Your task to perform on an android device: Open network settings Image 0: 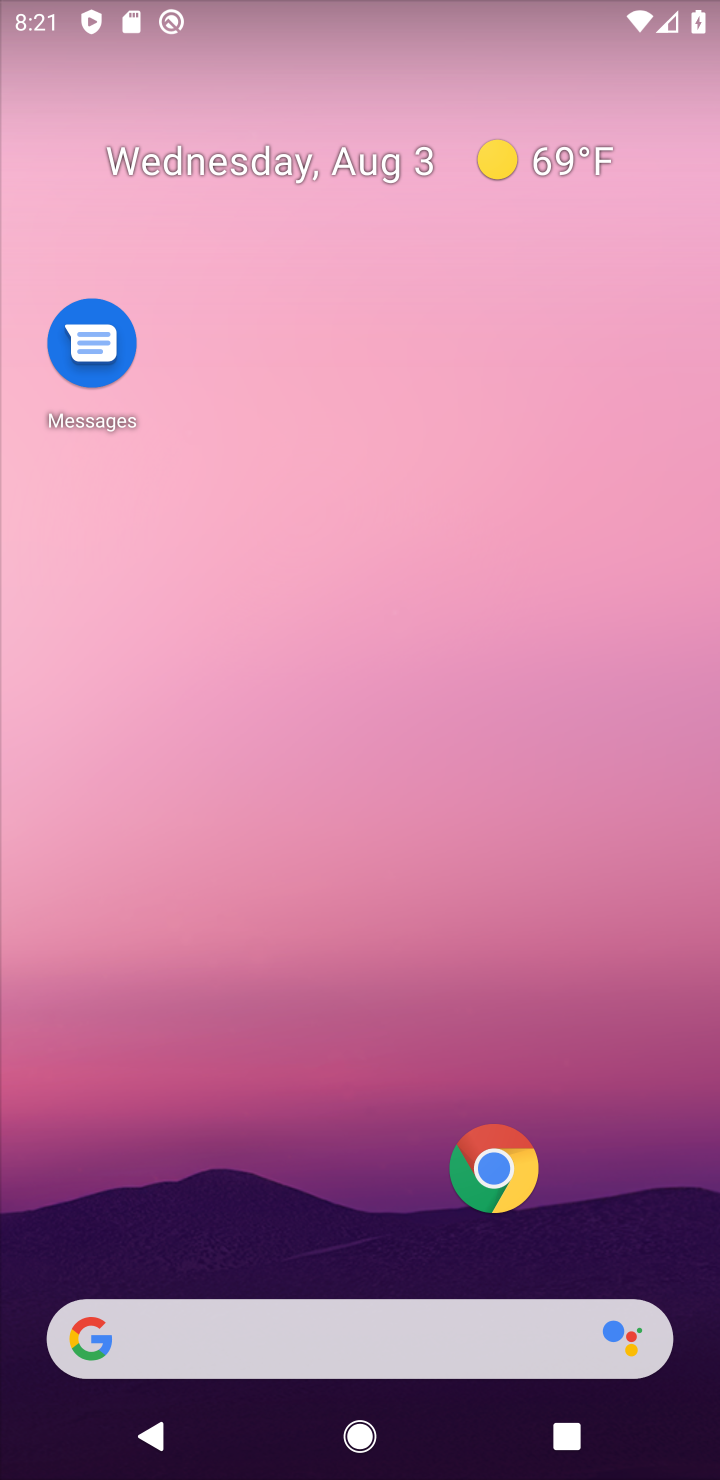
Step 0: drag from (410, 1190) to (388, 46)
Your task to perform on an android device: Open network settings Image 1: 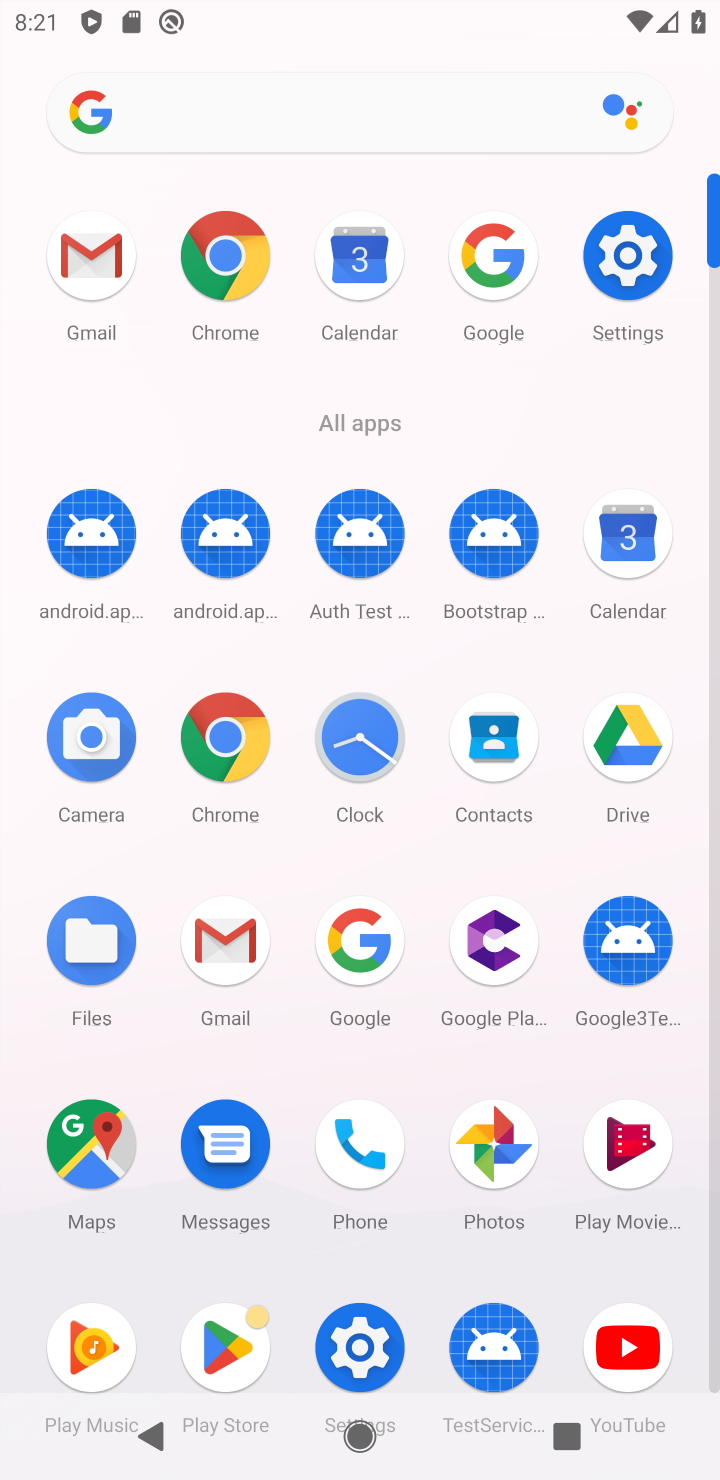
Step 1: click (597, 249)
Your task to perform on an android device: Open network settings Image 2: 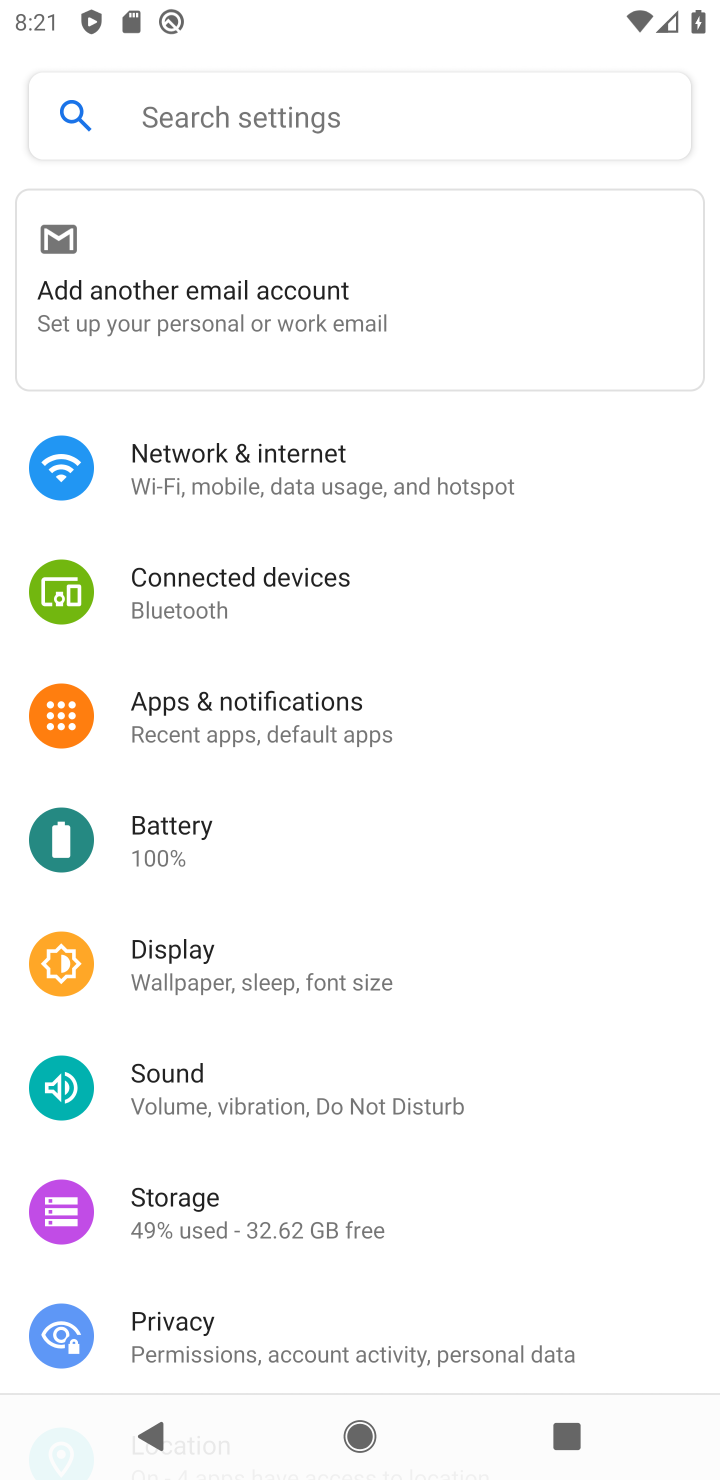
Step 2: click (277, 477)
Your task to perform on an android device: Open network settings Image 3: 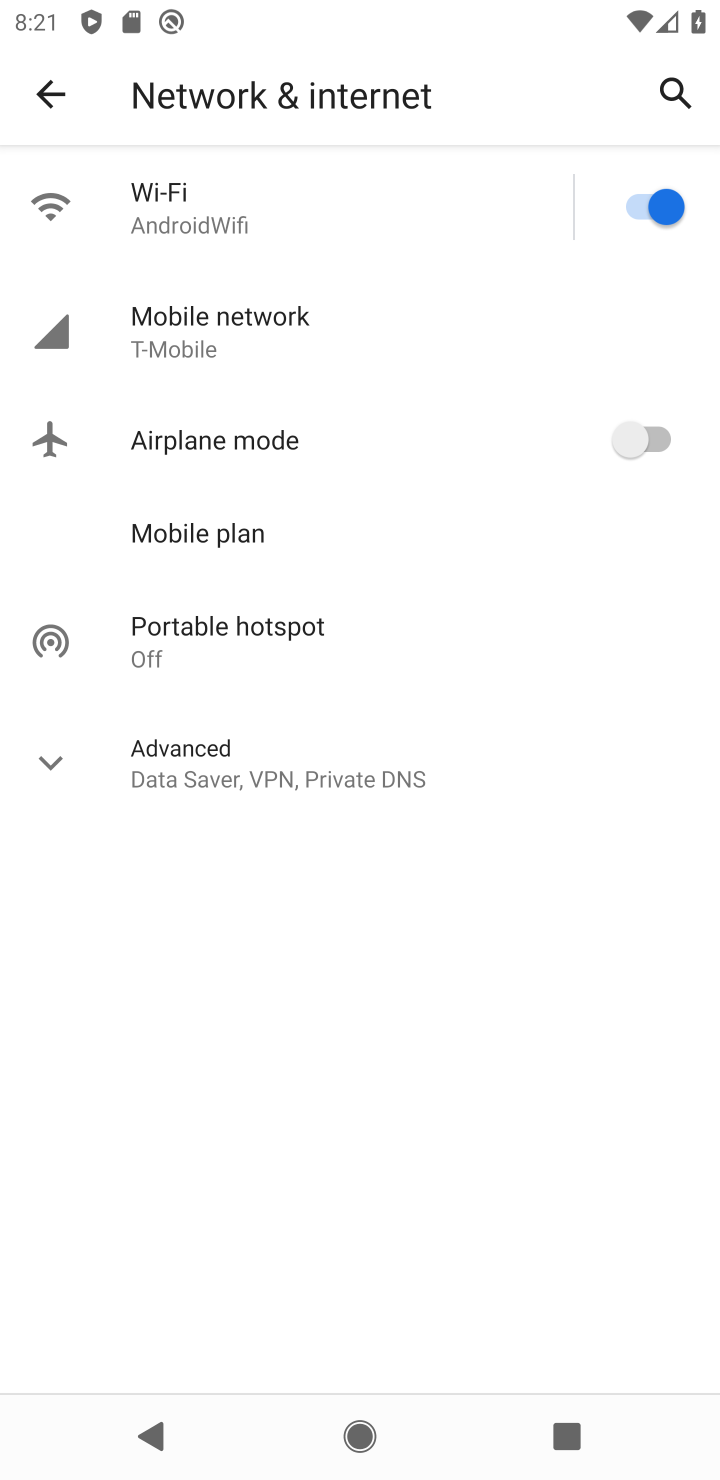
Step 3: click (134, 304)
Your task to perform on an android device: Open network settings Image 4: 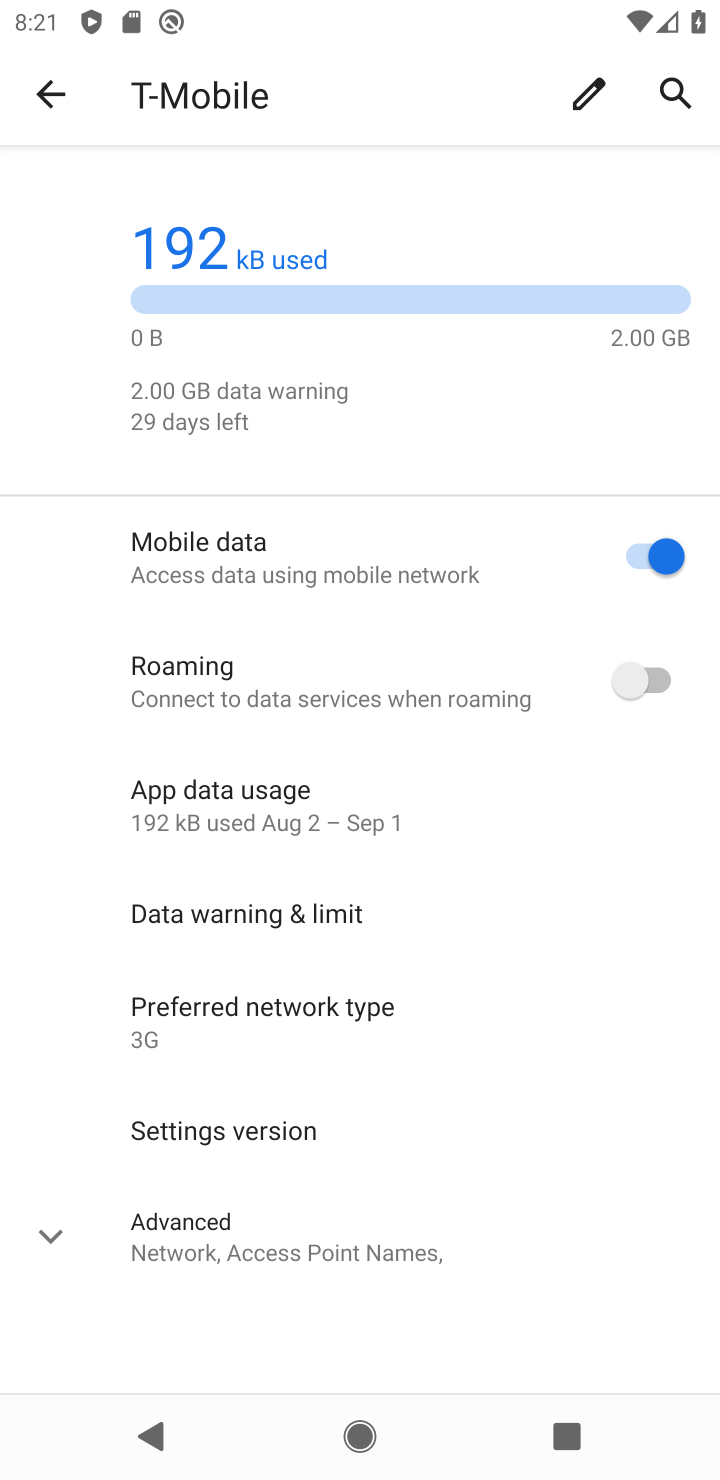
Step 4: task complete